Your task to perform on an android device: Go to display settings Image 0: 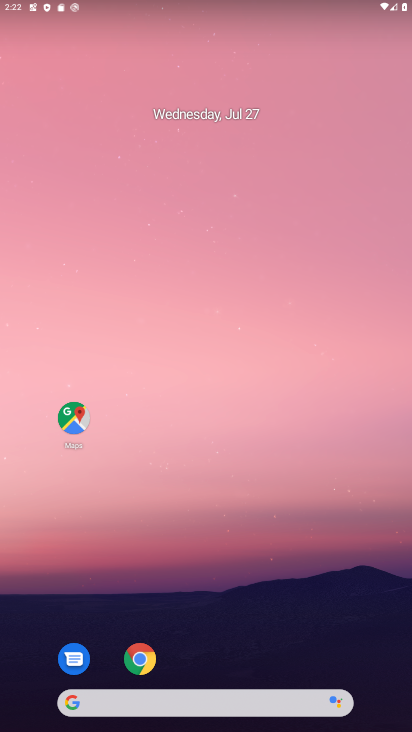
Step 0: drag from (215, 729) to (179, 295)
Your task to perform on an android device: Go to display settings Image 1: 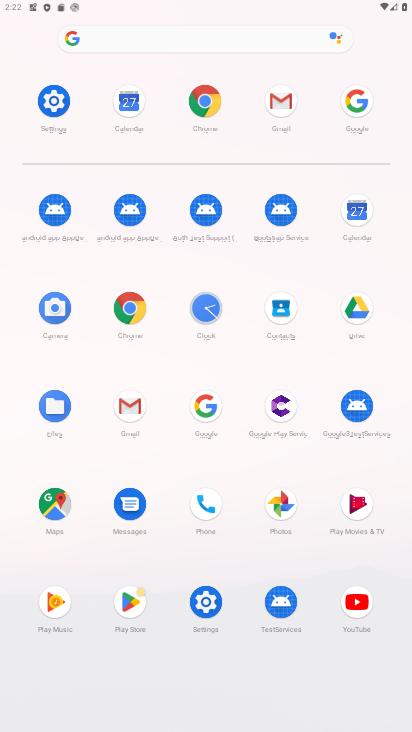
Step 1: click (52, 101)
Your task to perform on an android device: Go to display settings Image 2: 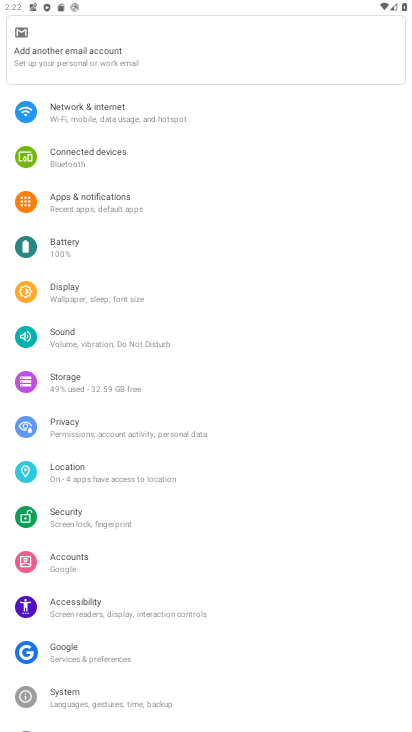
Step 2: click (58, 287)
Your task to perform on an android device: Go to display settings Image 3: 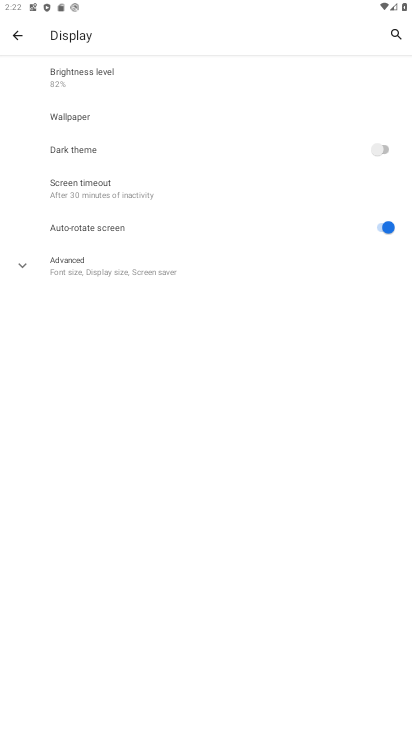
Step 3: task complete